Your task to perform on an android device: star an email in the gmail app Image 0: 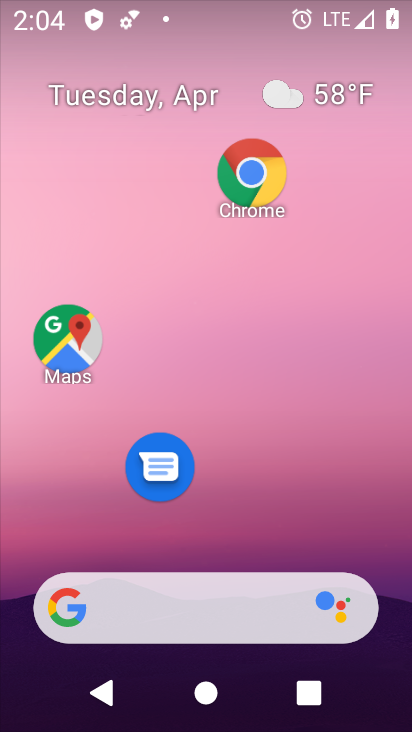
Step 0: drag from (280, 628) to (312, 30)
Your task to perform on an android device: star an email in the gmail app Image 1: 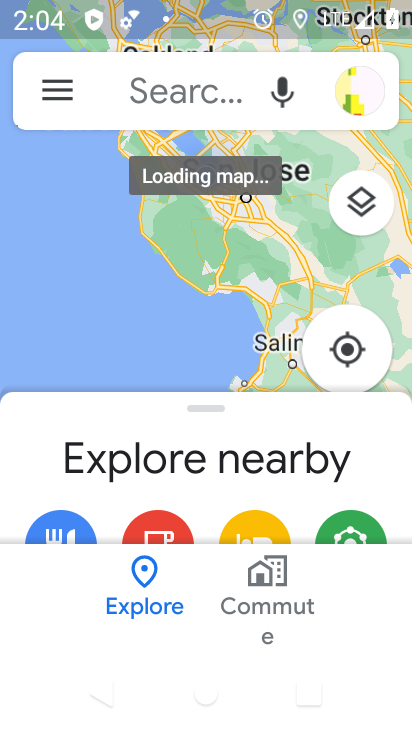
Step 1: press home button
Your task to perform on an android device: star an email in the gmail app Image 2: 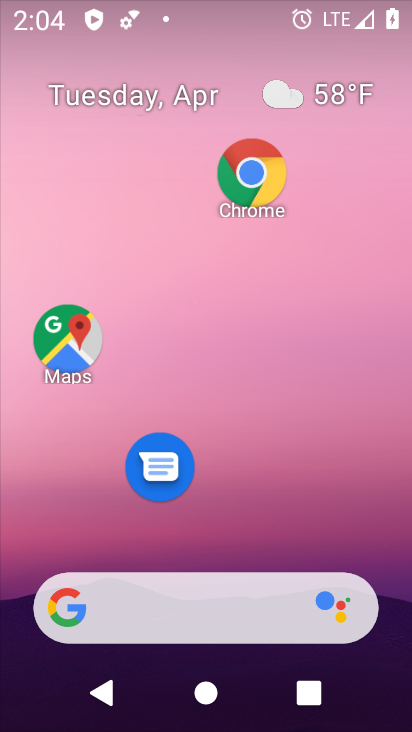
Step 2: drag from (227, 635) to (215, 15)
Your task to perform on an android device: star an email in the gmail app Image 3: 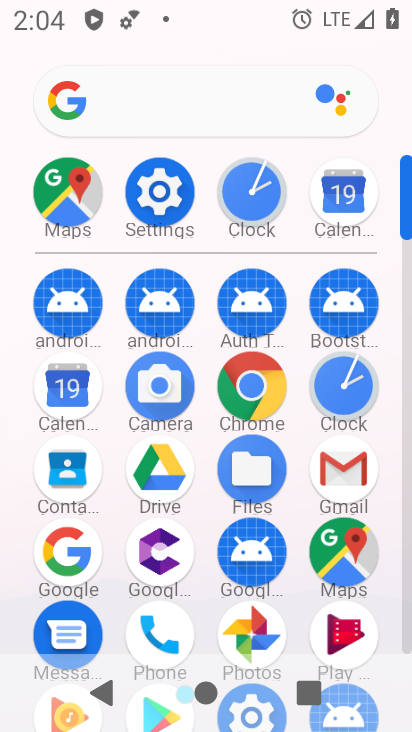
Step 3: click (331, 476)
Your task to perform on an android device: star an email in the gmail app Image 4: 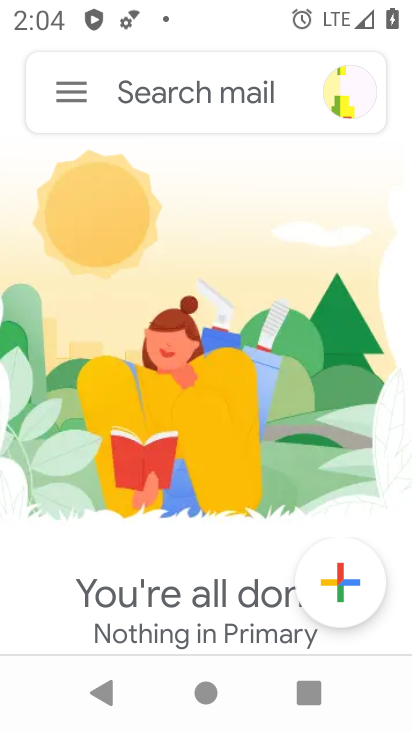
Step 4: click (71, 93)
Your task to perform on an android device: star an email in the gmail app Image 5: 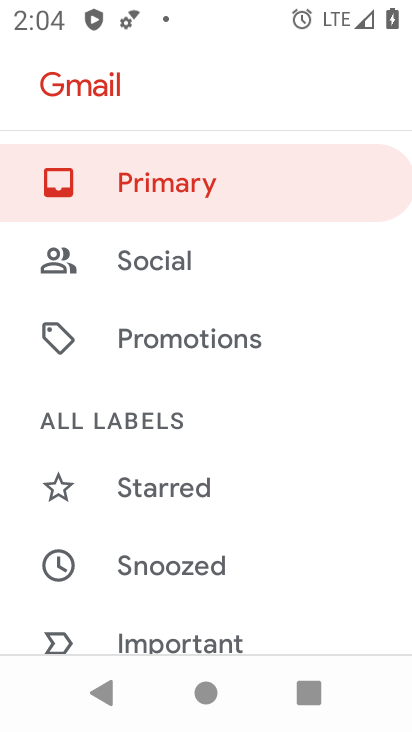
Step 5: drag from (239, 557) to (254, 325)
Your task to perform on an android device: star an email in the gmail app Image 6: 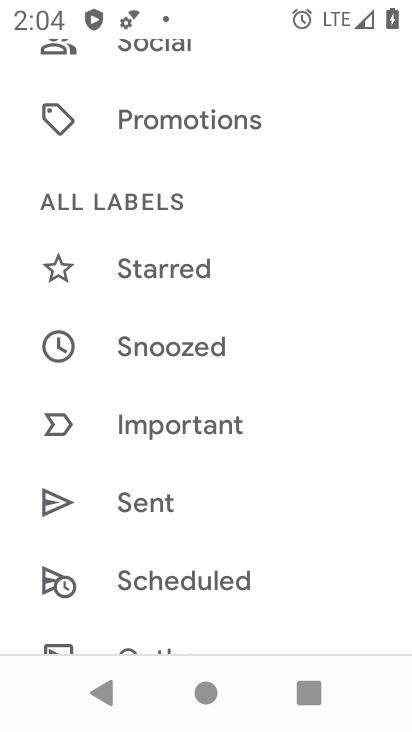
Step 6: click (203, 270)
Your task to perform on an android device: star an email in the gmail app Image 7: 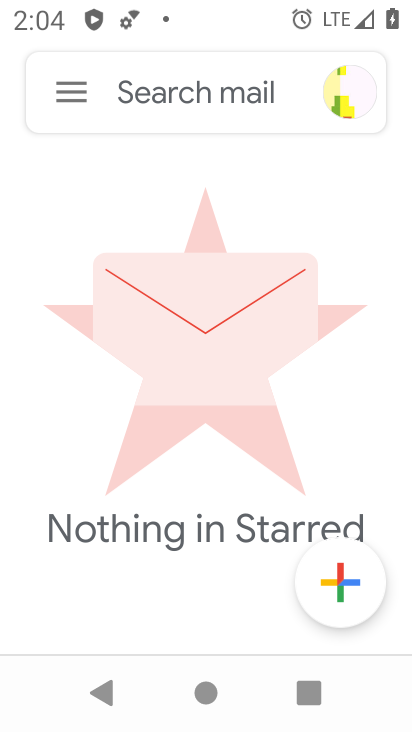
Step 7: task complete